Your task to perform on an android device: Go to Google Image 0: 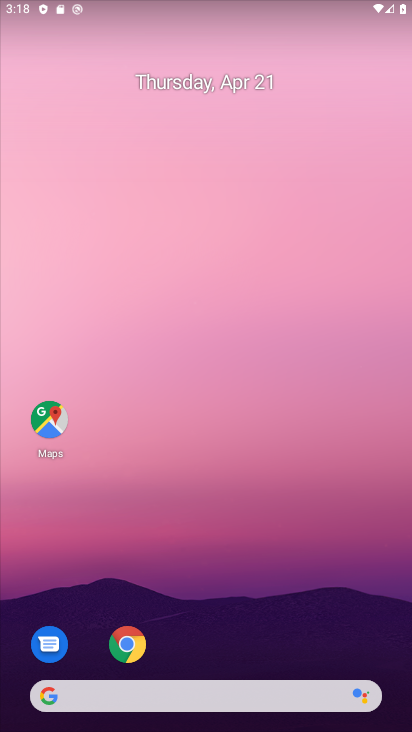
Step 0: drag from (214, 728) to (211, 115)
Your task to perform on an android device: Go to Google Image 1: 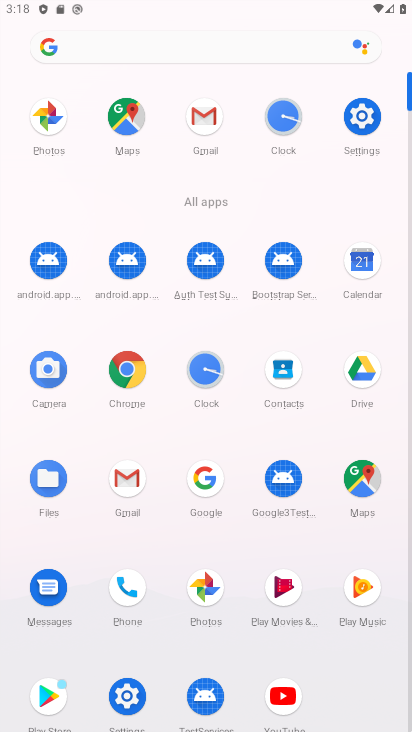
Step 1: click (209, 478)
Your task to perform on an android device: Go to Google Image 2: 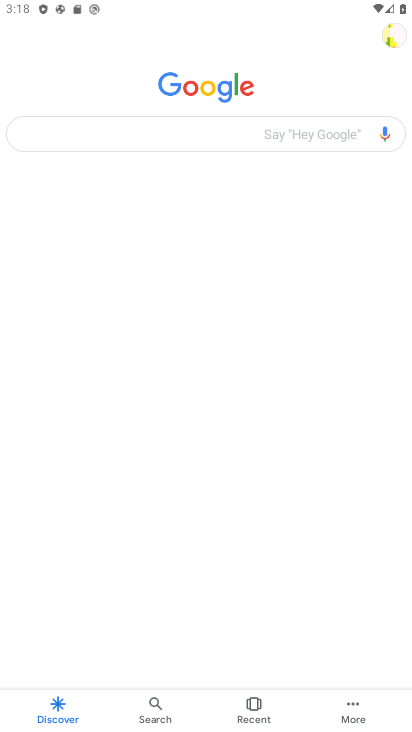
Step 2: task complete